Your task to perform on an android device: change the clock display to digital Image 0: 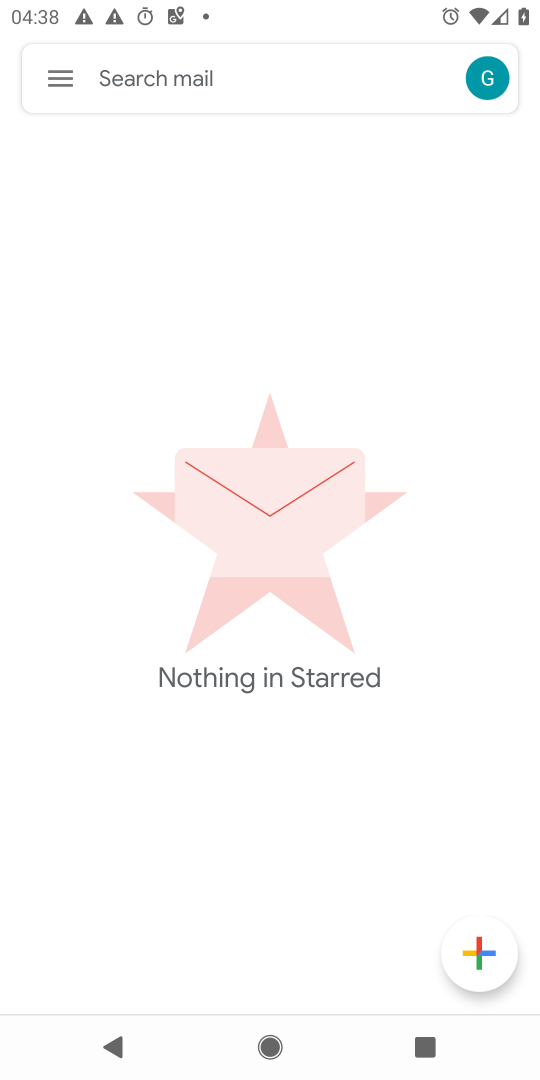
Step 0: press home button
Your task to perform on an android device: change the clock display to digital Image 1: 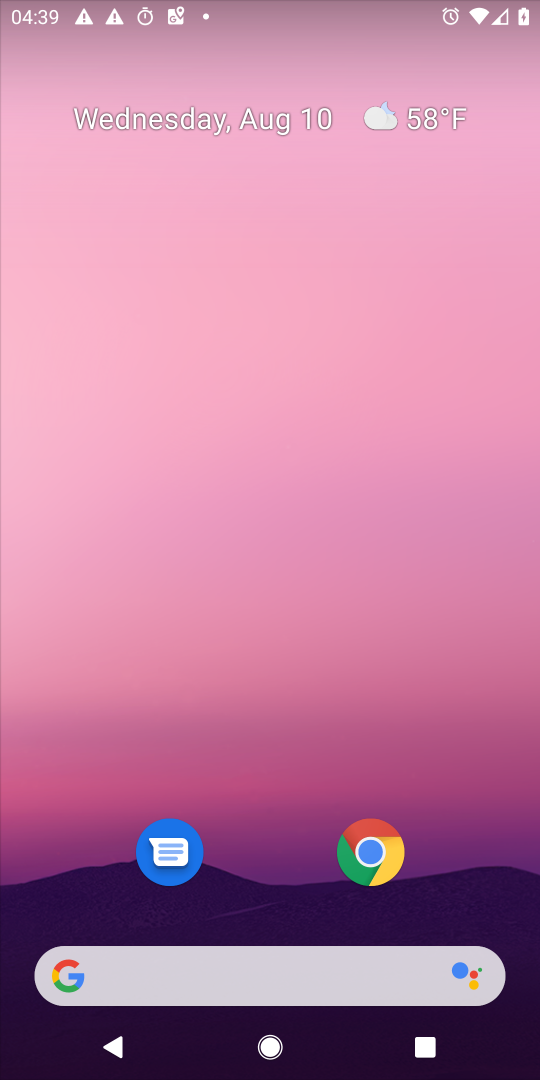
Step 1: drag from (501, 832) to (230, 24)
Your task to perform on an android device: change the clock display to digital Image 2: 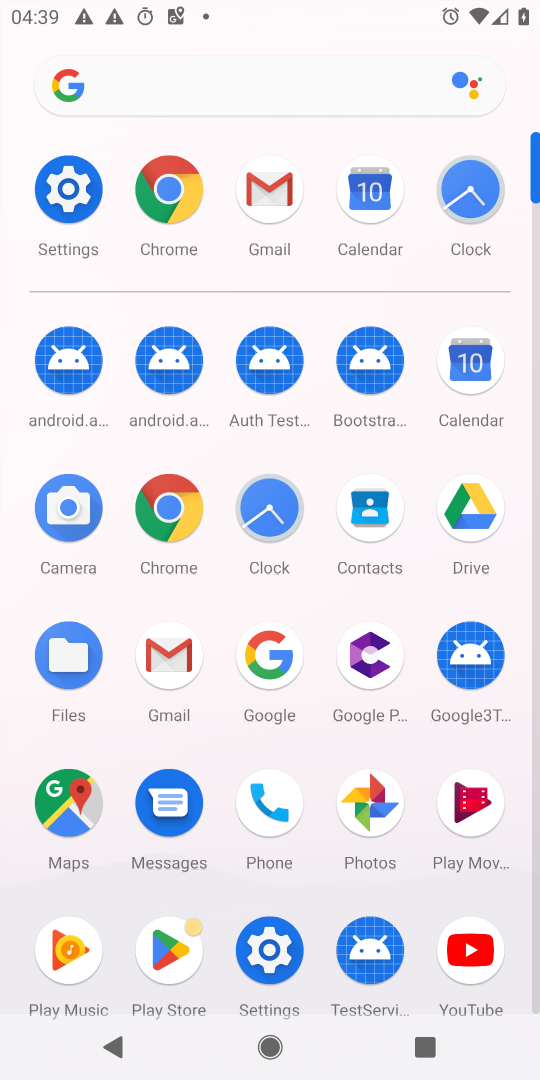
Step 2: click (283, 511)
Your task to perform on an android device: change the clock display to digital Image 3: 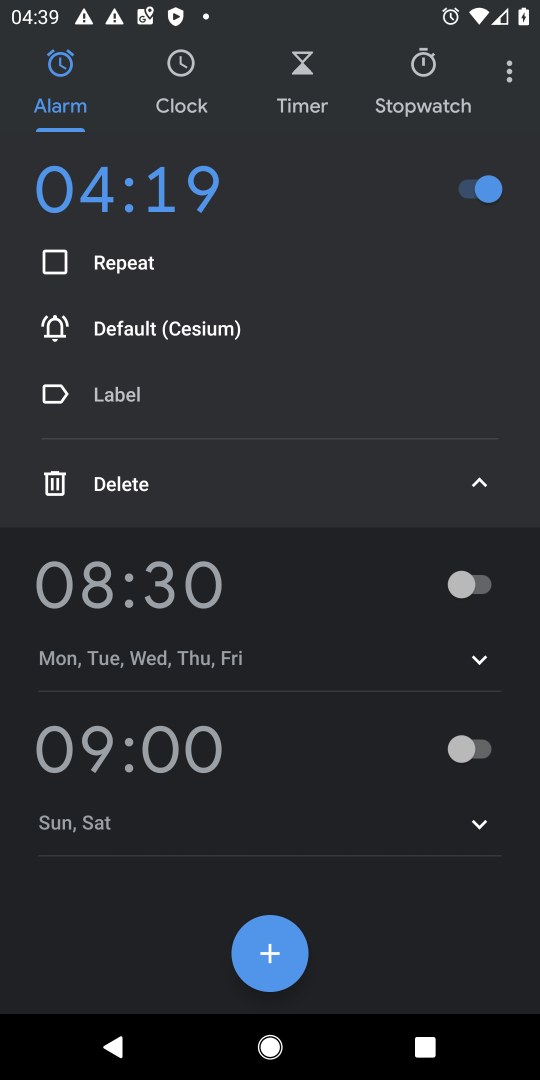
Step 3: click (514, 65)
Your task to perform on an android device: change the clock display to digital Image 4: 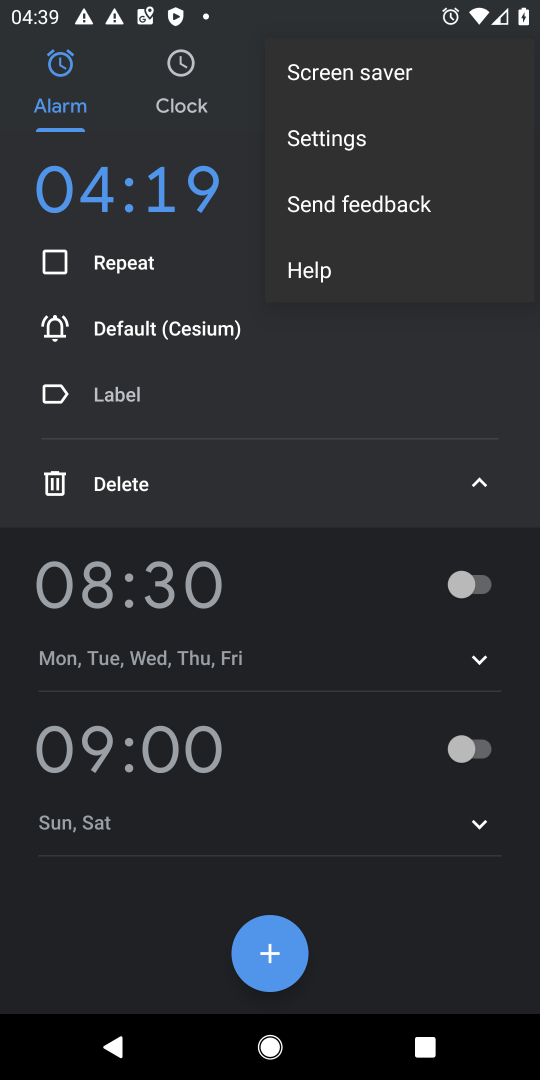
Step 4: click (395, 127)
Your task to perform on an android device: change the clock display to digital Image 5: 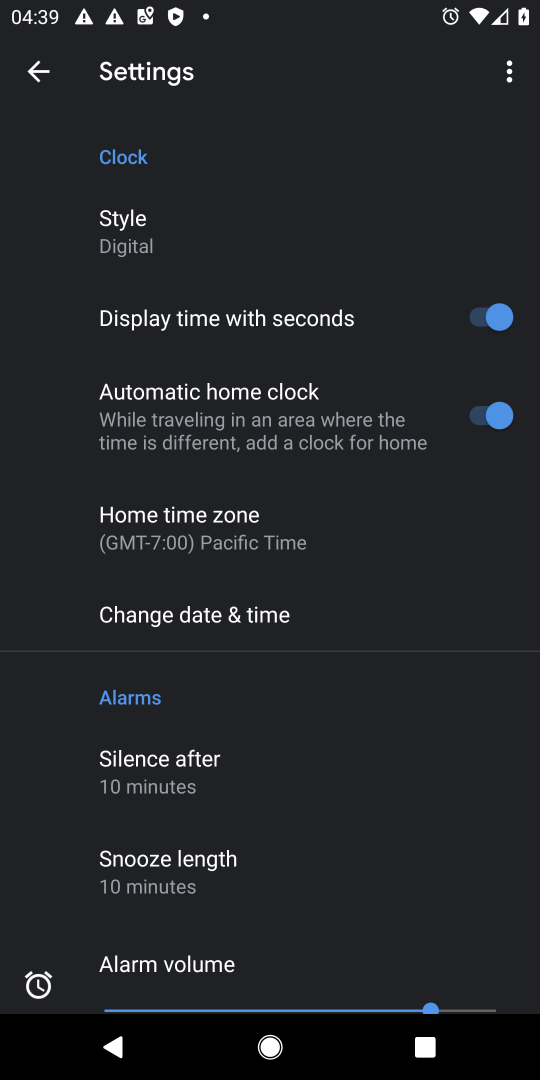
Step 5: click (141, 213)
Your task to perform on an android device: change the clock display to digital Image 6: 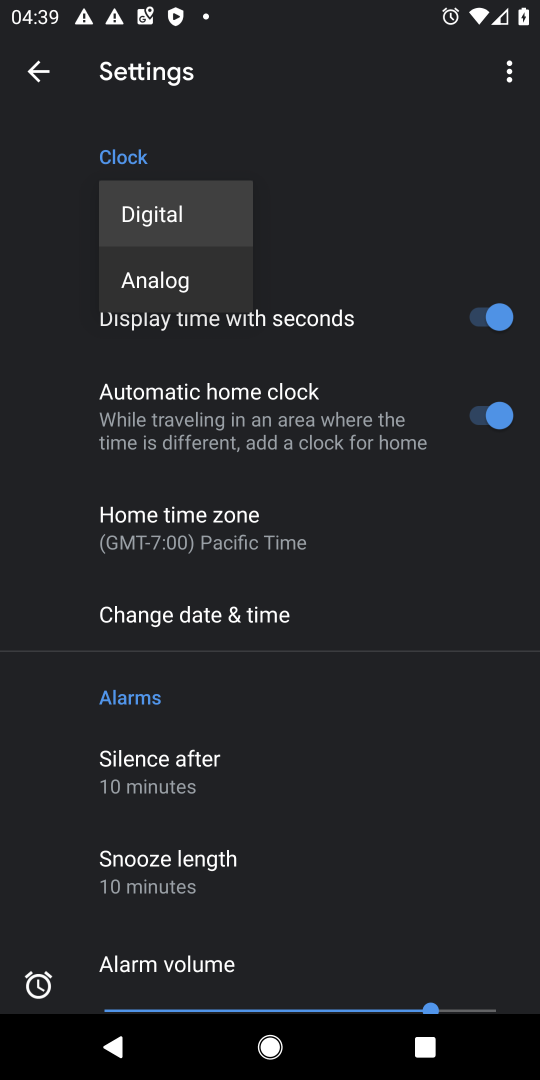
Step 6: task complete